Your task to perform on an android device: turn on wifi Image 0: 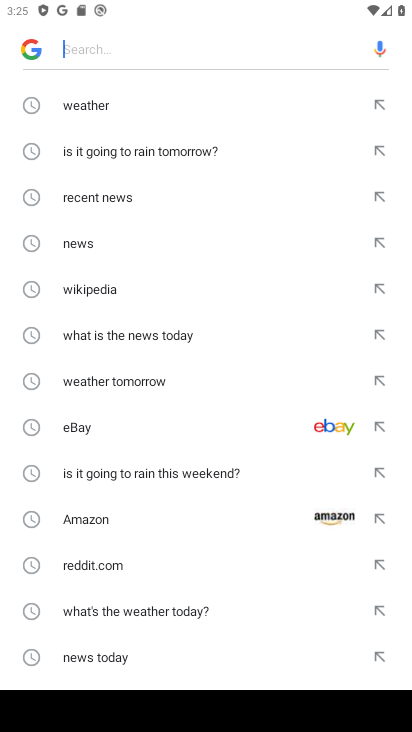
Step 0: press home button
Your task to perform on an android device: turn on wifi Image 1: 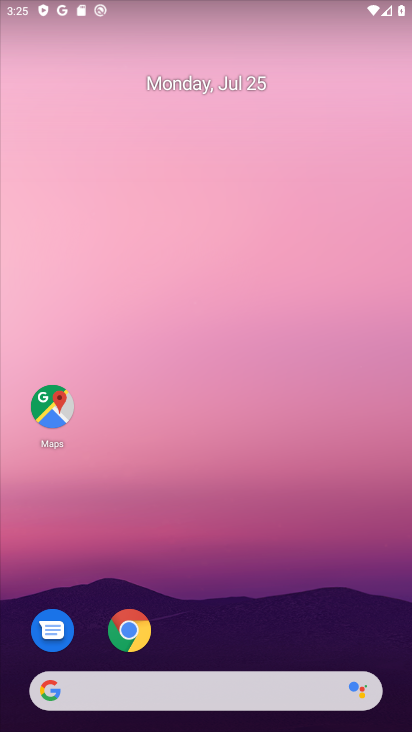
Step 1: drag from (161, 688) to (170, 150)
Your task to perform on an android device: turn on wifi Image 2: 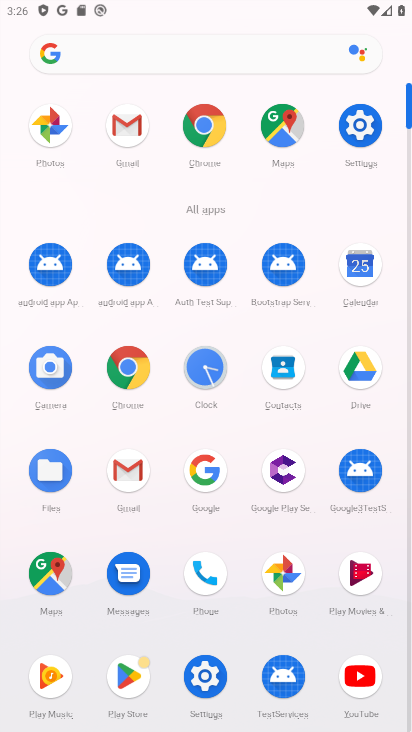
Step 2: click (359, 127)
Your task to perform on an android device: turn on wifi Image 3: 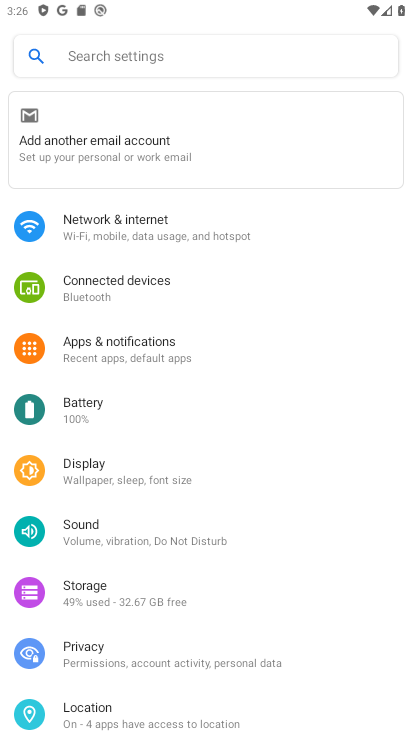
Step 3: click (195, 233)
Your task to perform on an android device: turn on wifi Image 4: 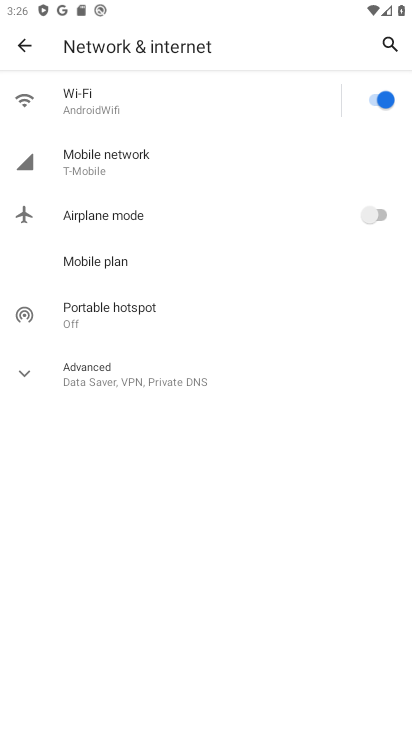
Step 4: task complete